Your task to perform on an android device: turn on showing notifications on the lock screen Image 0: 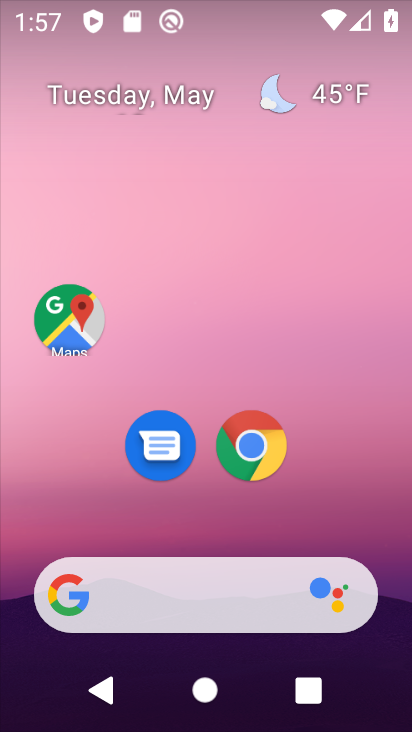
Step 0: drag from (202, 524) to (185, 88)
Your task to perform on an android device: turn on showing notifications on the lock screen Image 1: 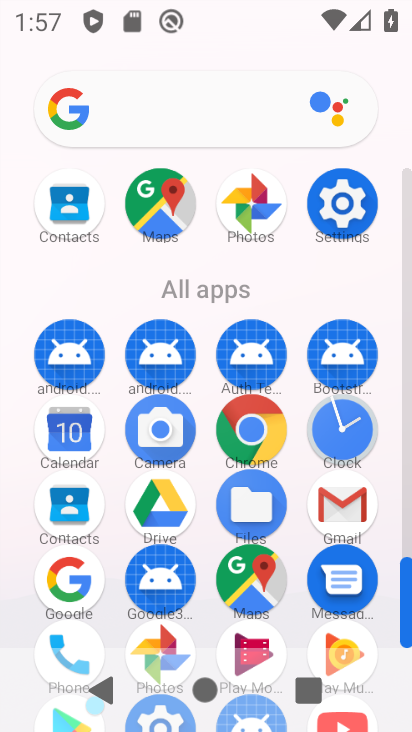
Step 1: click (348, 200)
Your task to perform on an android device: turn on showing notifications on the lock screen Image 2: 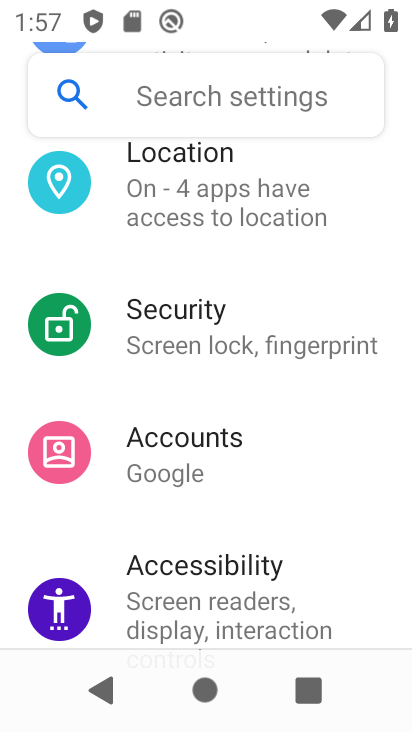
Step 2: drag from (249, 540) to (253, 50)
Your task to perform on an android device: turn on showing notifications on the lock screen Image 3: 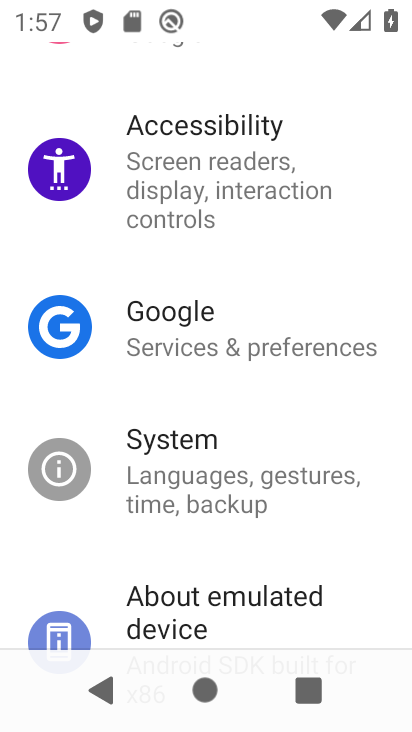
Step 3: drag from (238, 175) to (311, 558)
Your task to perform on an android device: turn on showing notifications on the lock screen Image 4: 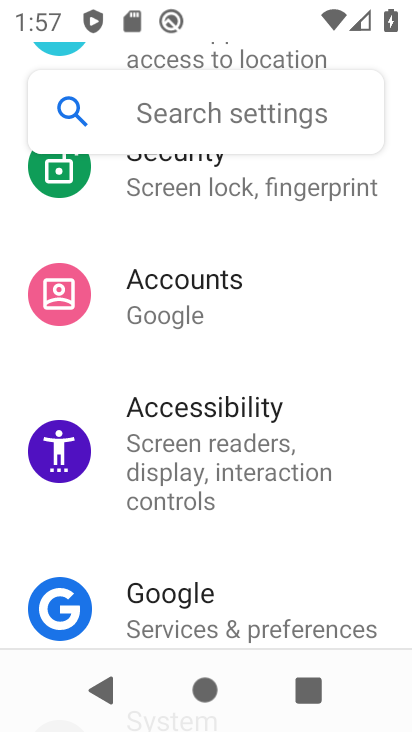
Step 4: drag from (188, 206) to (204, 552)
Your task to perform on an android device: turn on showing notifications on the lock screen Image 5: 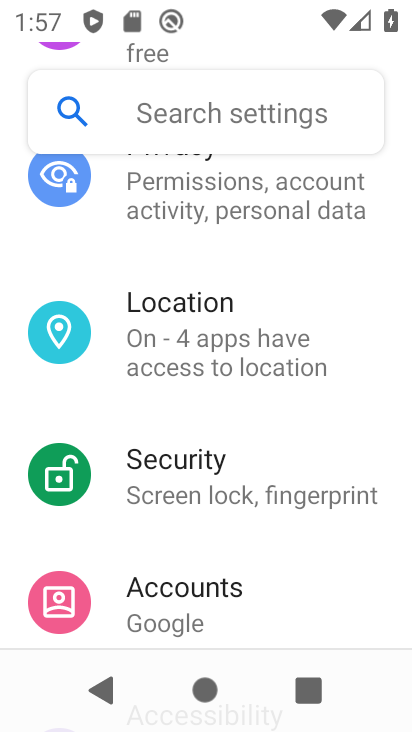
Step 5: drag from (185, 251) to (258, 705)
Your task to perform on an android device: turn on showing notifications on the lock screen Image 6: 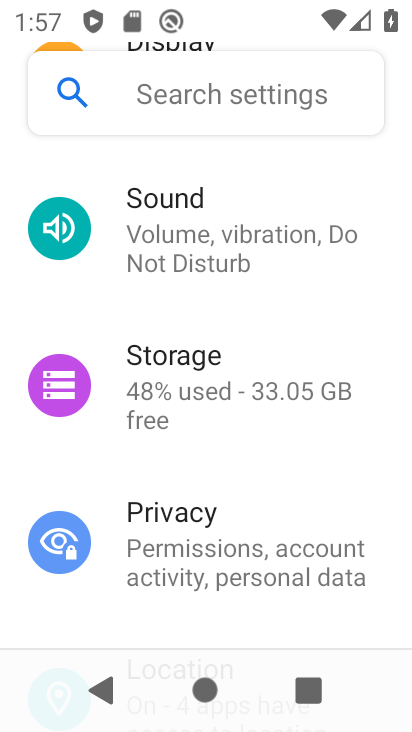
Step 6: drag from (132, 201) to (230, 620)
Your task to perform on an android device: turn on showing notifications on the lock screen Image 7: 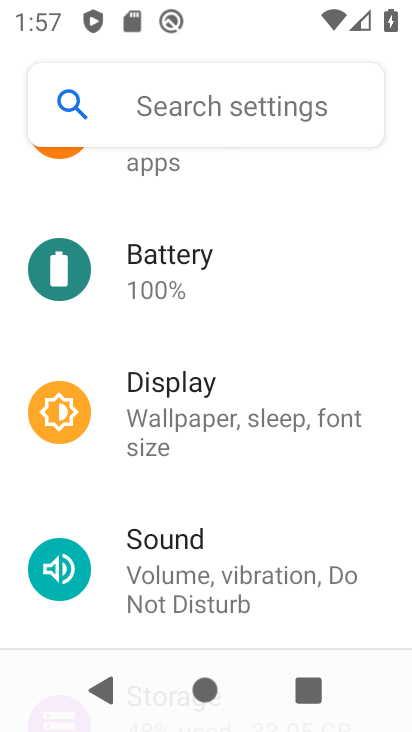
Step 7: click (149, 159)
Your task to perform on an android device: turn on showing notifications on the lock screen Image 8: 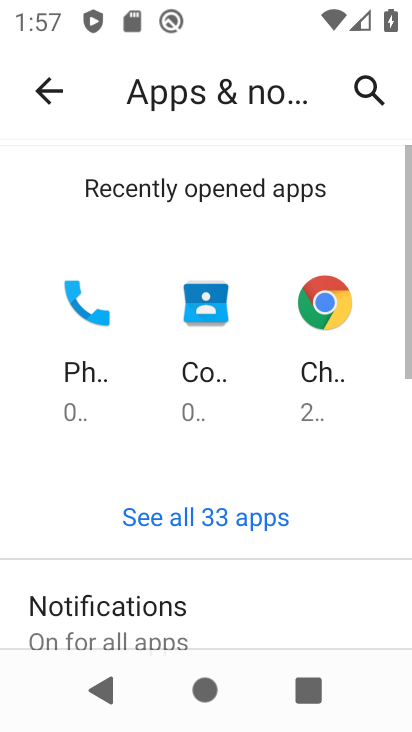
Step 8: click (166, 610)
Your task to perform on an android device: turn on showing notifications on the lock screen Image 9: 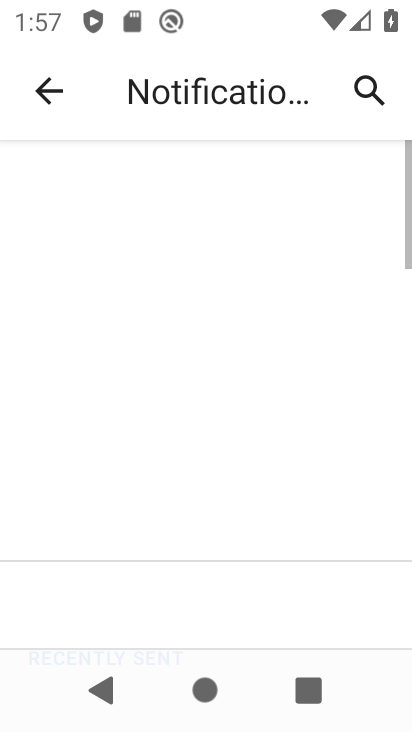
Step 9: drag from (213, 575) to (251, 38)
Your task to perform on an android device: turn on showing notifications on the lock screen Image 10: 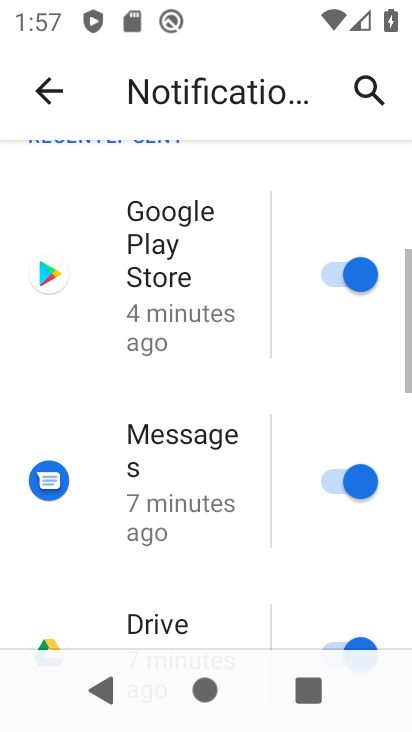
Step 10: drag from (169, 568) to (209, 63)
Your task to perform on an android device: turn on showing notifications on the lock screen Image 11: 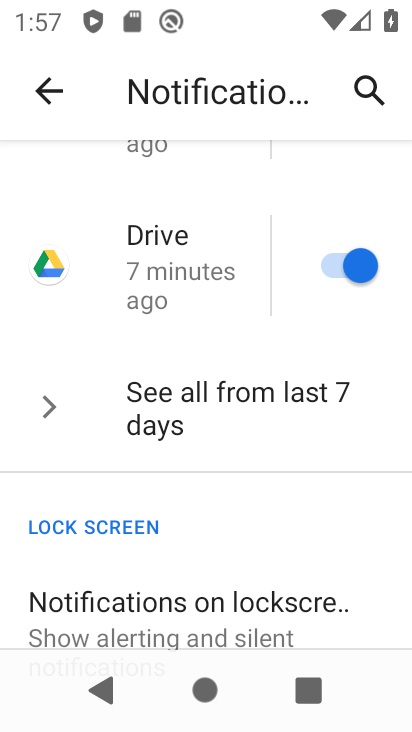
Step 11: click (192, 617)
Your task to perform on an android device: turn on showing notifications on the lock screen Image 12: 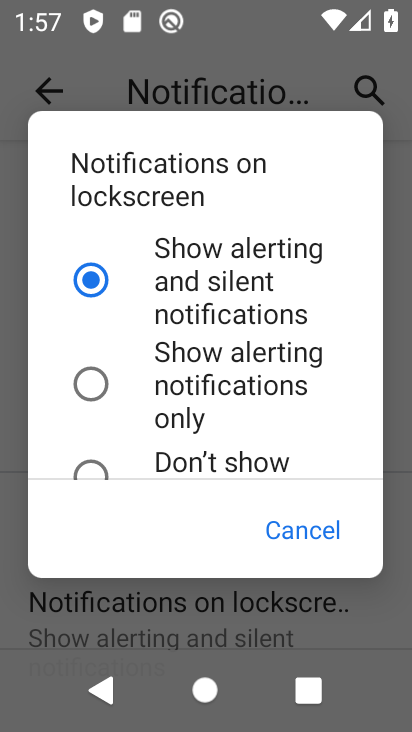
Step 12: task complete